Your task to perform on an android device: turn on translation in the chrome app Image 0: 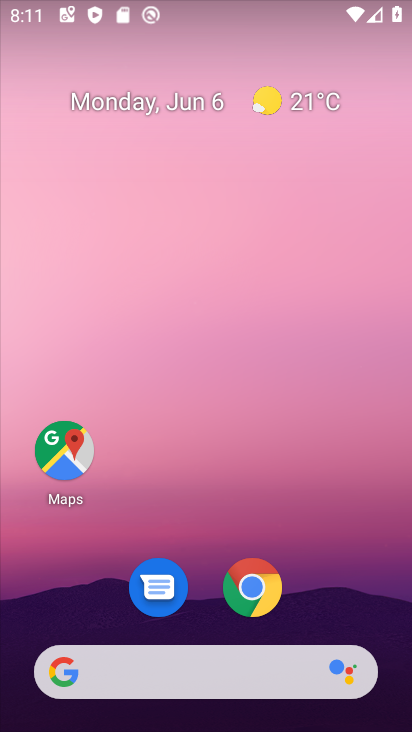
Step 0: click (265, 591)
Your task to perform on an android device: turn on translation in the chrome app Image 1: 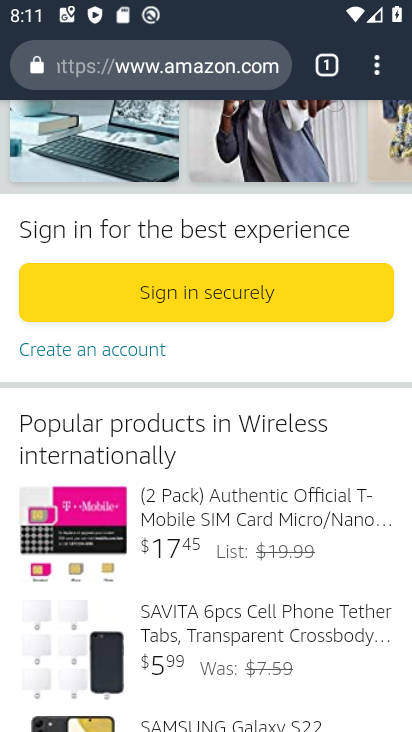
Step 1: click (378, 72)
Your task to perform on an android device: turn on translation in the chrome app Image 2: 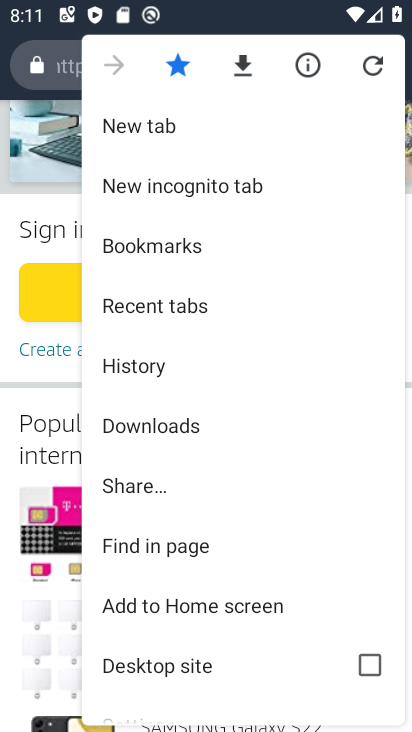
Step 2: drag from (234, 657) to (236, 16)
Your task to perform on an android device: turn on translation in the chrome app Image 3: 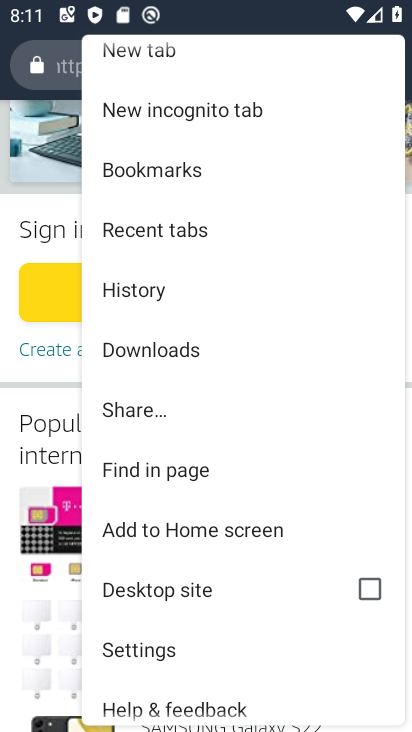
Step 3: click (142, 652)
Your task to perform on an android device: turn on translation in the chrome app Image 4: 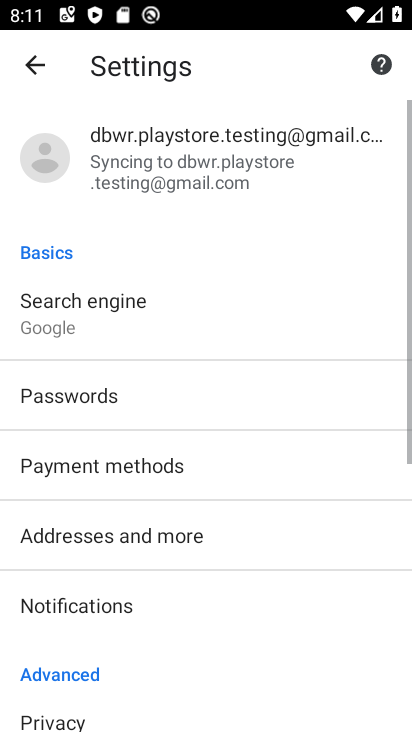
Step 4: drag from (213, 681) to (255, 128)
Your task to perform on an android device: turn on translation in the chrome app Image 5: 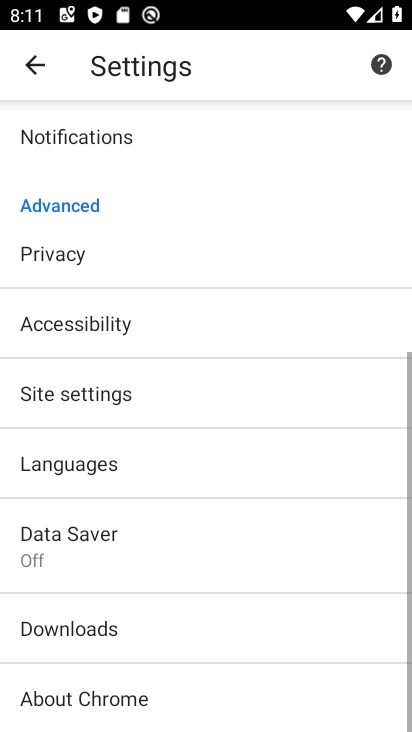
Step 5: click (137, 452)
Your task to perform on an android device: turn on translation in the chrome app Image 6: 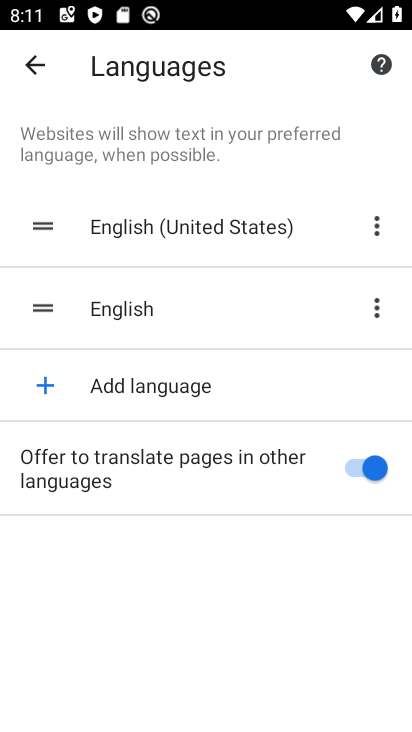
Step 6: task complete